Your task to perform on an android device: turn on wifi Image 0: 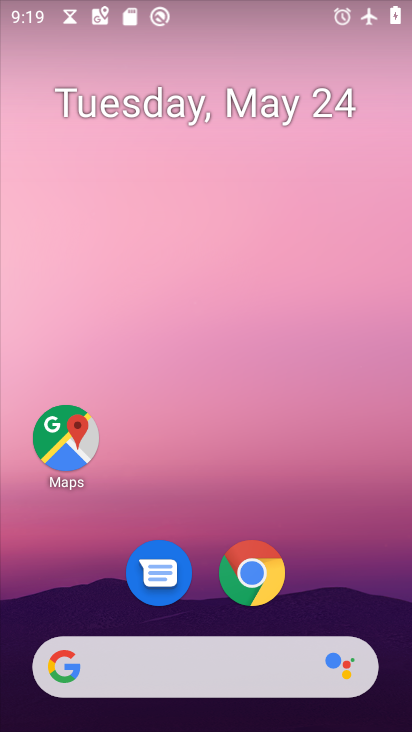
Step 0: drag from (335, 596) to (243, 26)
Your task to perform on an android device: turn on wifi Image 1: 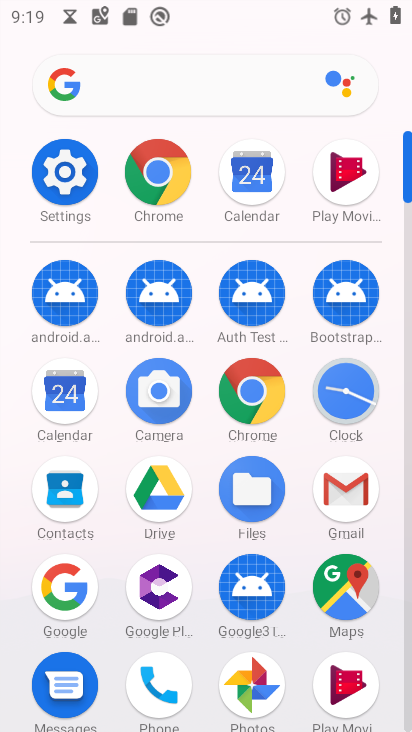
Step 1: click (79, 185)
Your task to perform on an android device: turn on wifi Image 2: 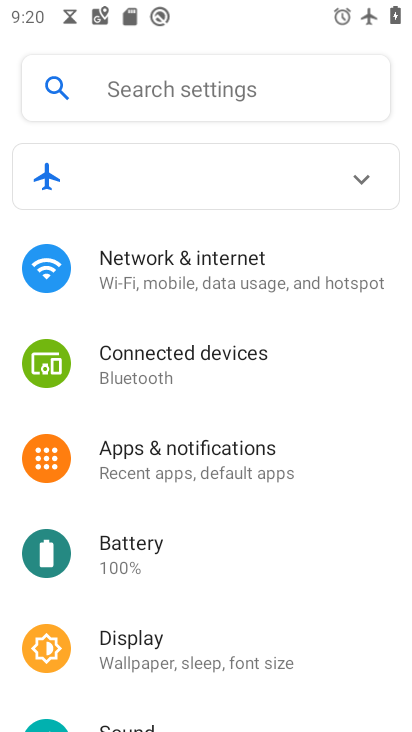
Step 2: click (180, 250)
Your task to perform on an android device: turn on wifi Image 3: 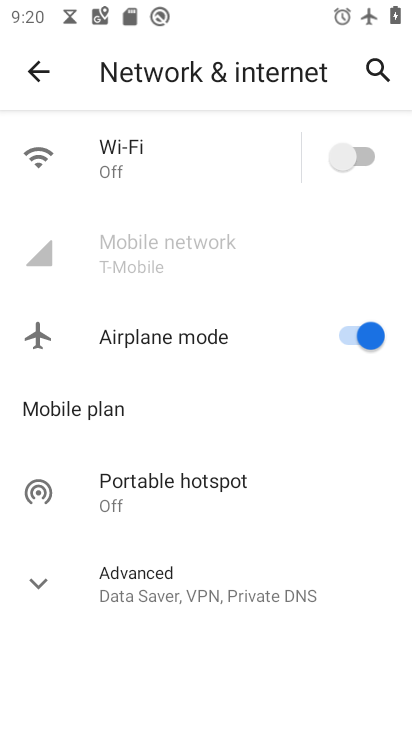
Step 3: click (361, 152)
Your task to perform on an android device: turn on wifi Image 4: 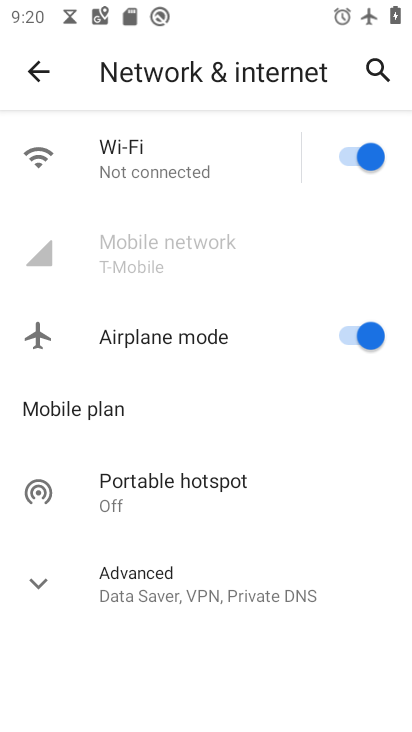
Step 4: task complete